Your task to perform on an android device: Set the phone to "Do not disturb". Image 0: 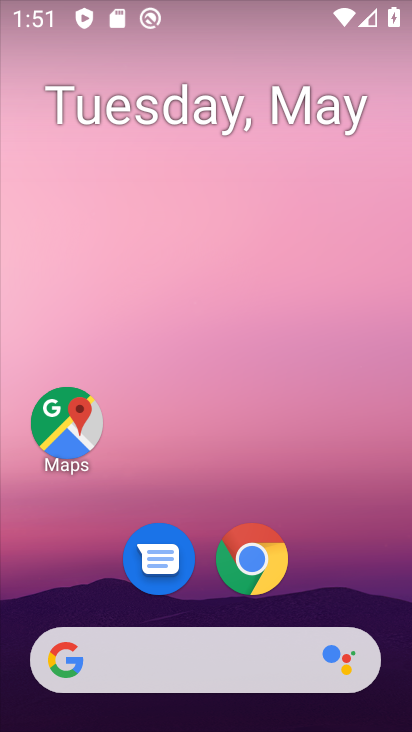
Step 0: drag from (181, 8) to (204, 527)
Your task to perform on an android device: Set the phone to "Do not disturb". Image 1: 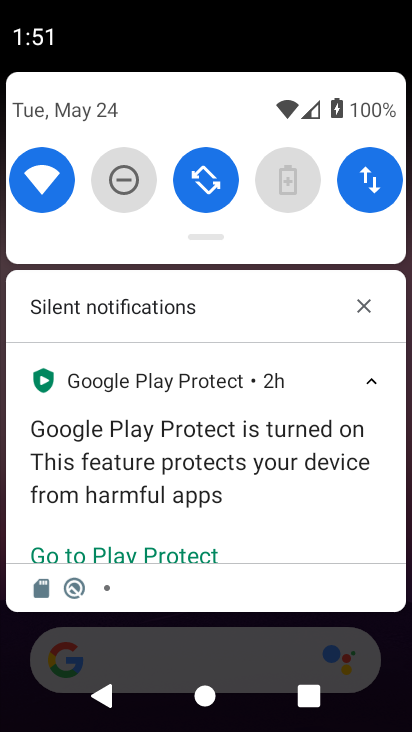
Step 1: click (115, 180)
Your task to perform on an android device: Set the phone to "Do not disturb". Image 2: 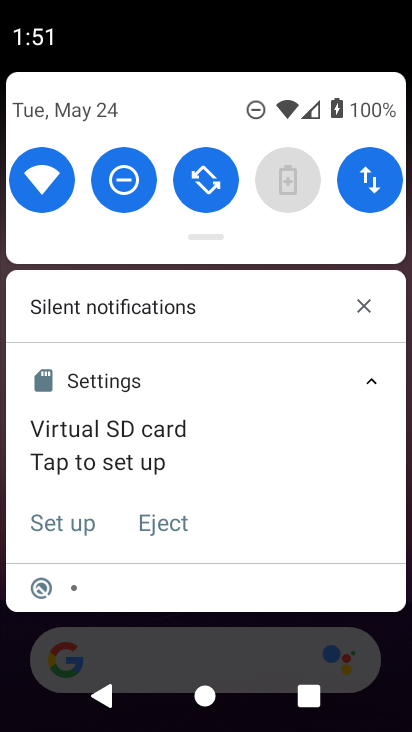
Step 2: task complete